Your task to perform on an android device: star an email in the gmail app Image 0: 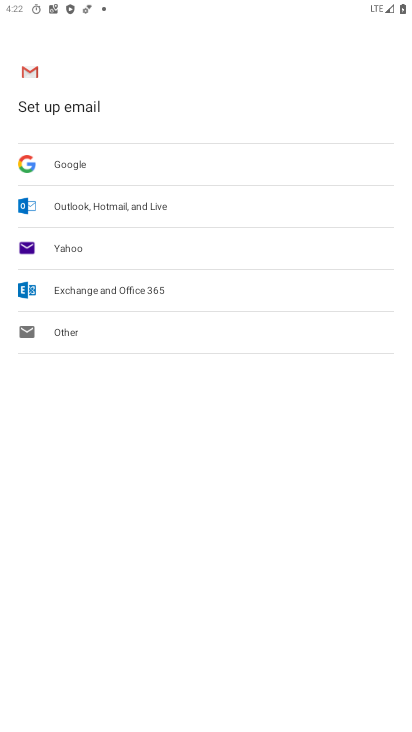
Step 0: press home button
Your task to perform on an android device: star an email in the gmail app Image 1: 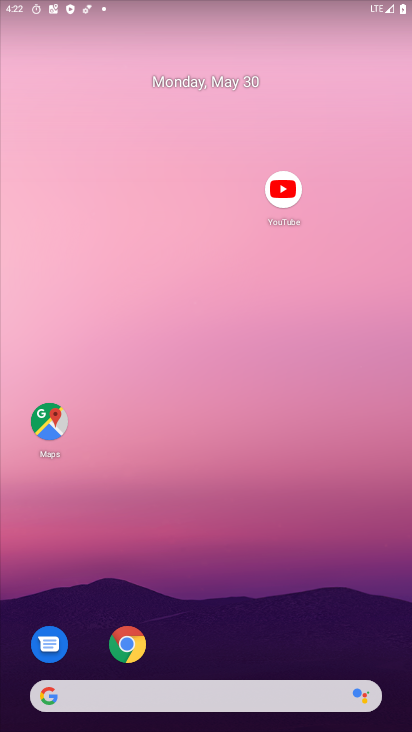
Step 1: drag from (233, 617) to (208, 59)
Your task to perform on an android device: star an email in the gmail app Image 2: 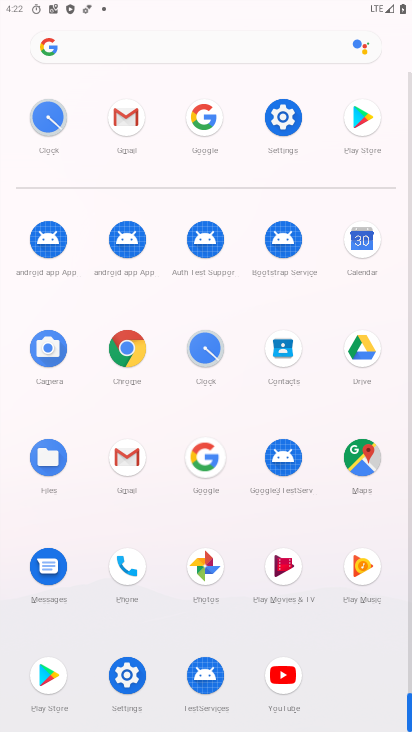
Step 2: click (109, 121)
Your task to perform on an android device: star an email in the gmail app Image 3: 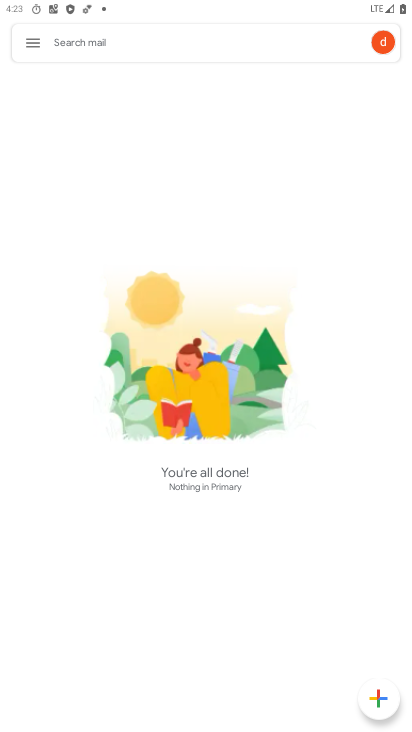
Step 3: task complete